Your task to perform on an android device: delete browsing data in the chrome app Image 0: 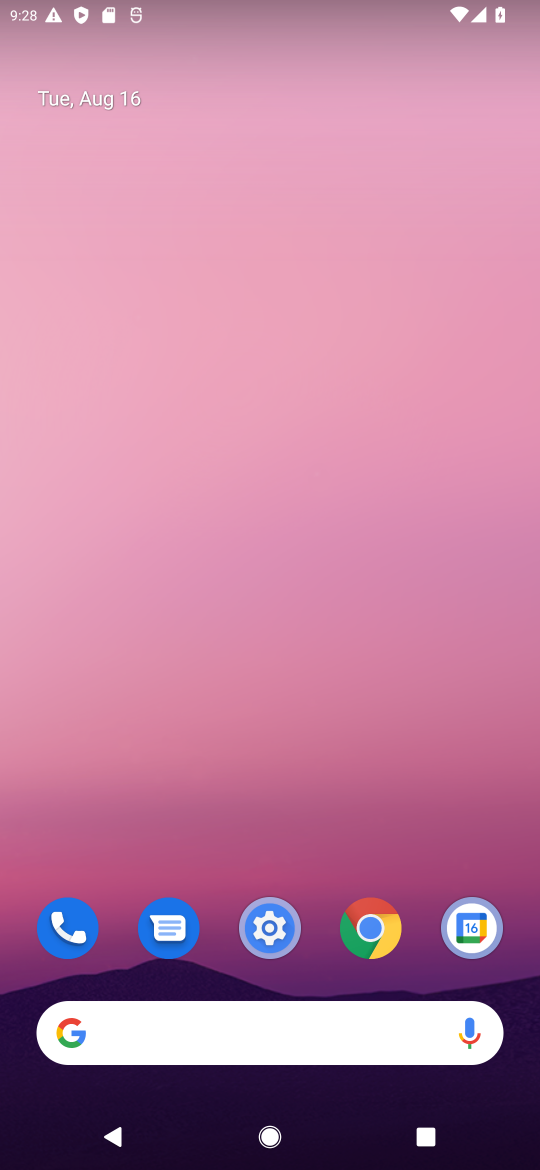
Step 0: press home button
Your task to perform on an android device: delete browsing data in the chrome app Image 1: 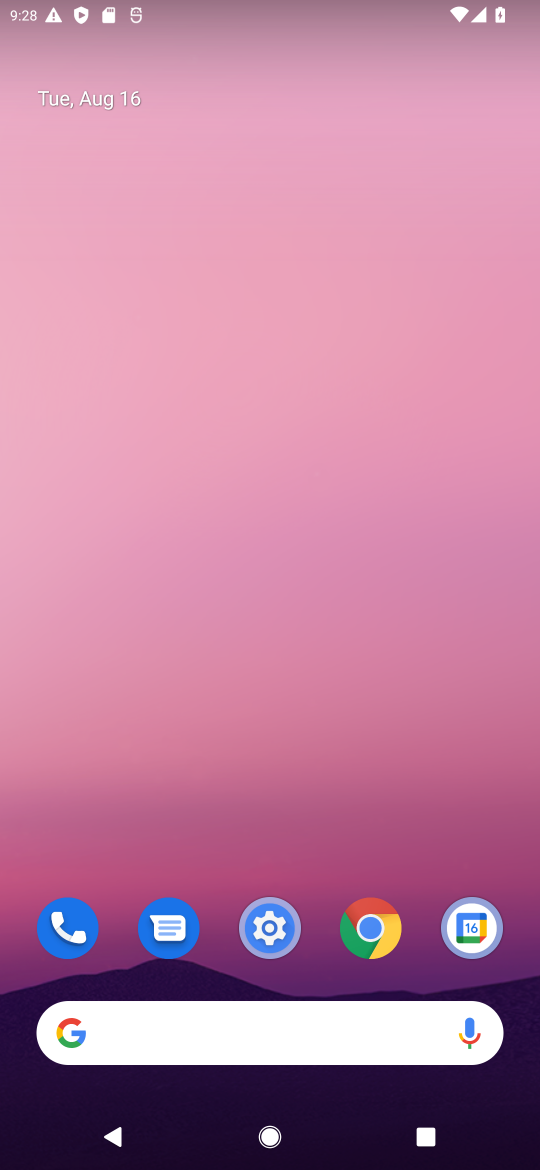
Step 1: click (363, 929)
Your task to perform on an android device: delete browsing data in the chrome app Image 2: 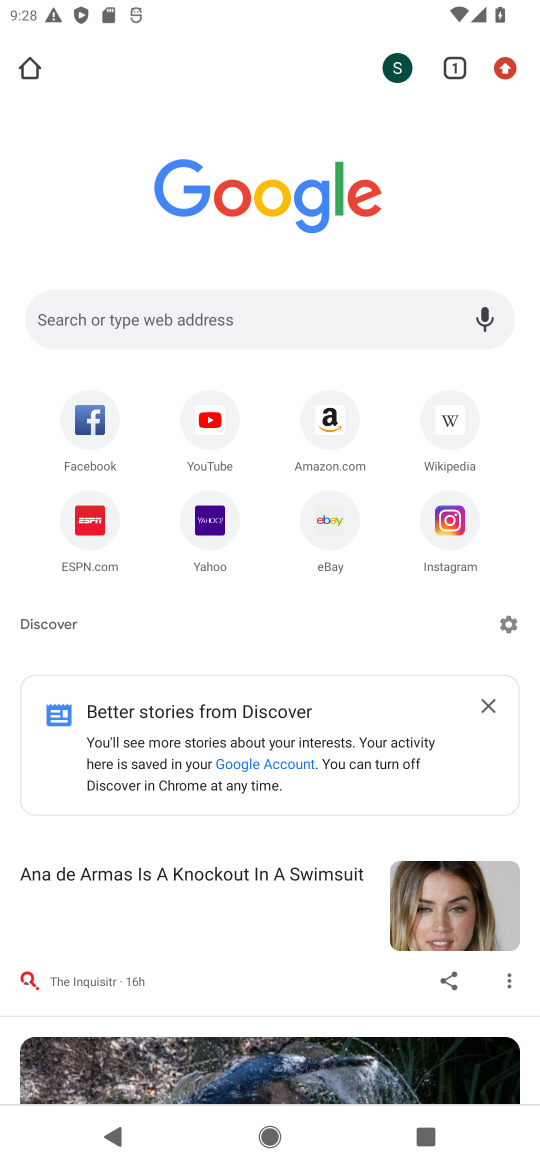
Step 2: click (506, 71)
Your task to perform on an android device: delete browsing data in the chrome app Image 3: 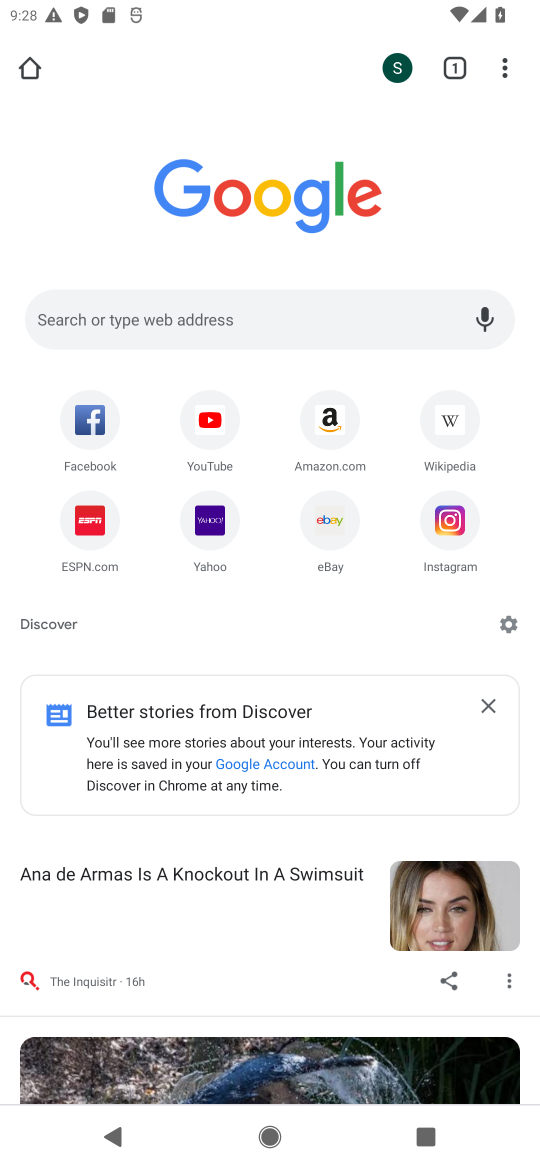
Step 3: drag from (495, 59) to (308, 665)
Your task to perform on an android device: delete browsing data in the chrome app Image 4: 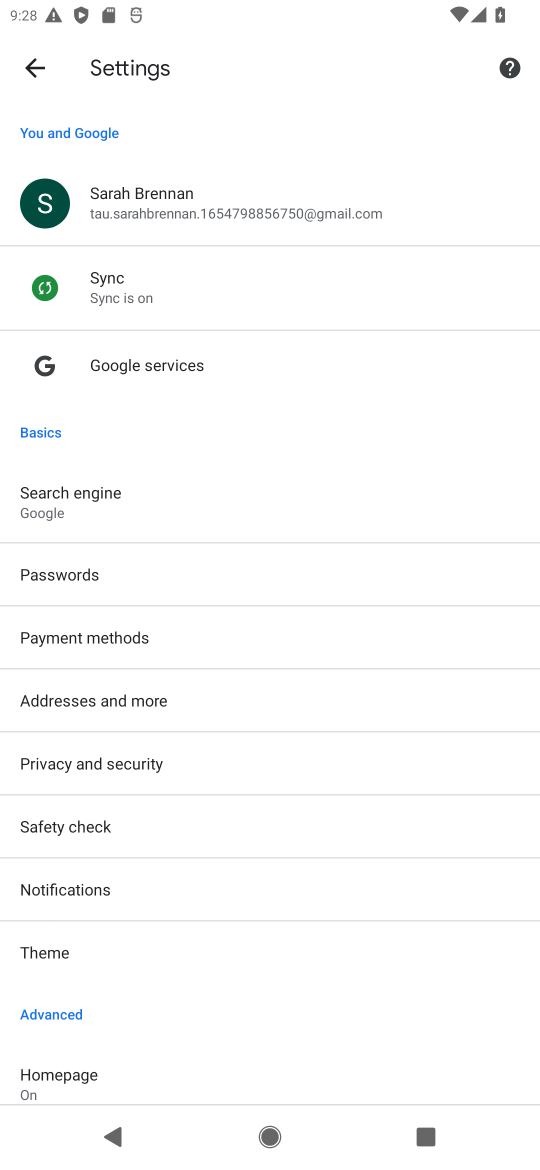
Step 4: drag from (141, 1016) to (152, 694)
Your task to perform on an android device: delete browsing data in the chrome app Image 5: 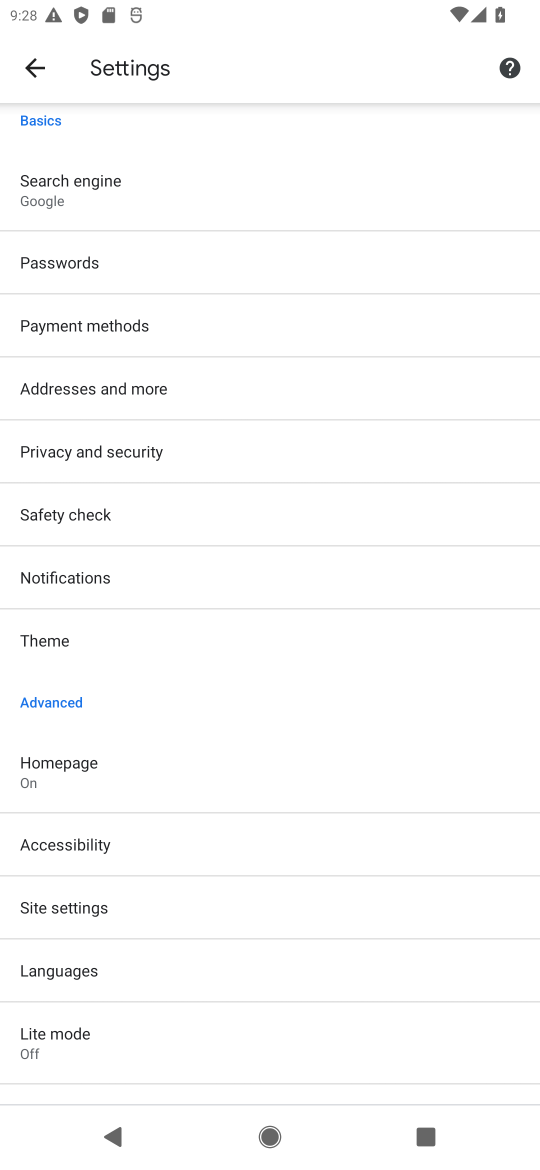
Step 5: click (106, 462)
Your task to perform on an android device: delete browsing data in the chrome app Image 6: 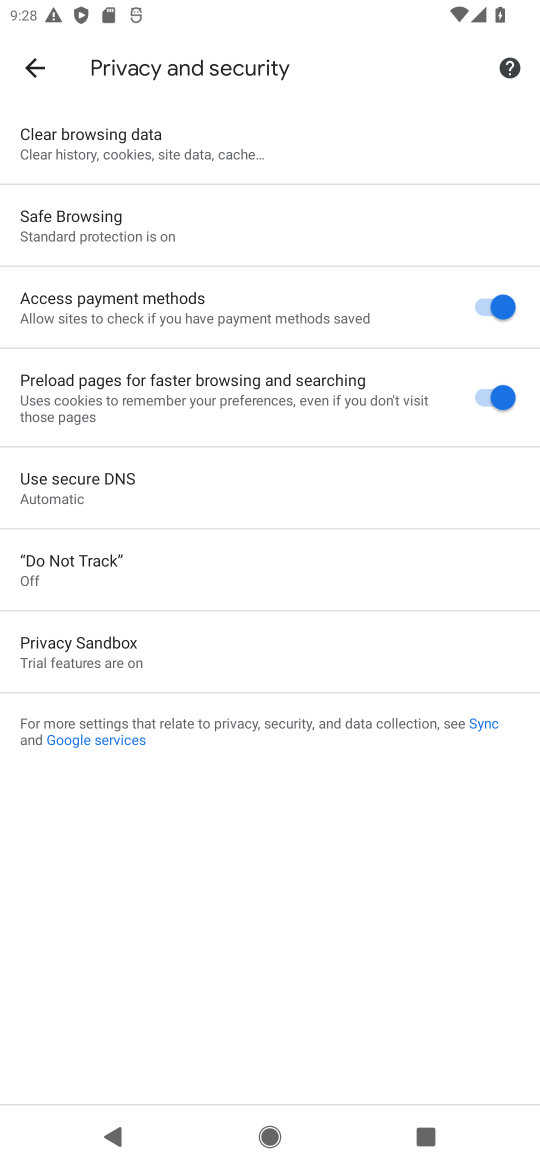
Step 6: click (139, 145)
Your task to perform on an android device: delete browsing data in the chrome app Image 7: 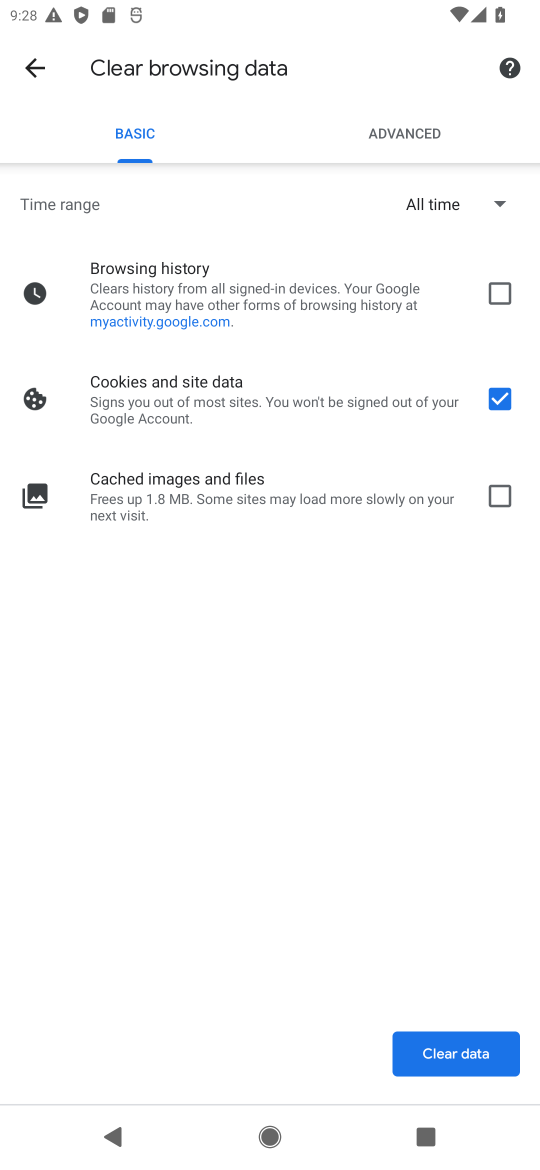
Step 7: click (495, 299)
Your task to perform on an android device: delete browsing data in the chrome app Image 8: 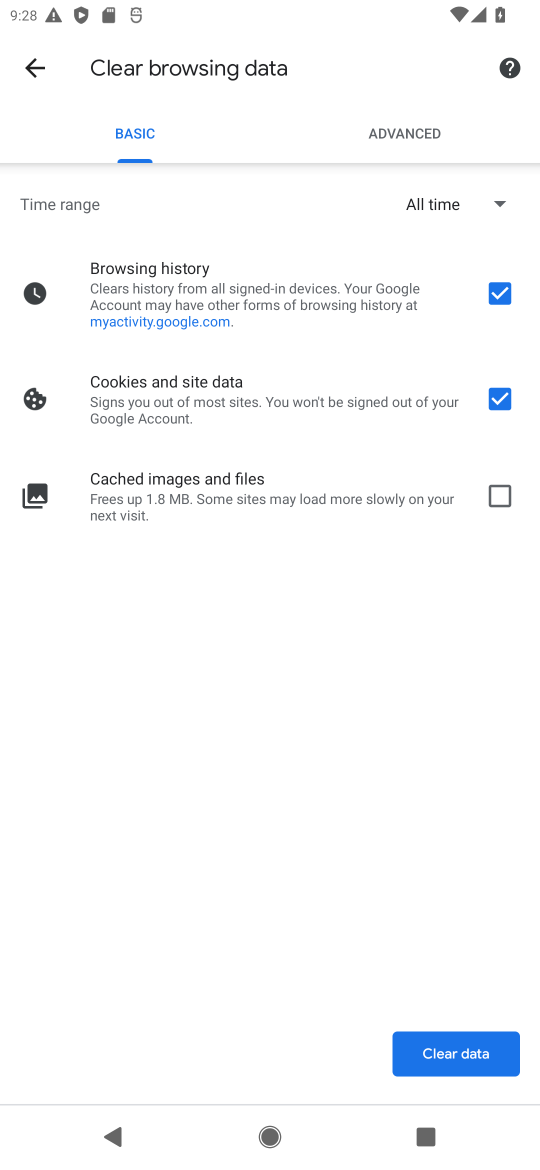
Step 8: click (493, 409)
Your task to perform on an android device: delete browsing data in the chrome app Image 9: 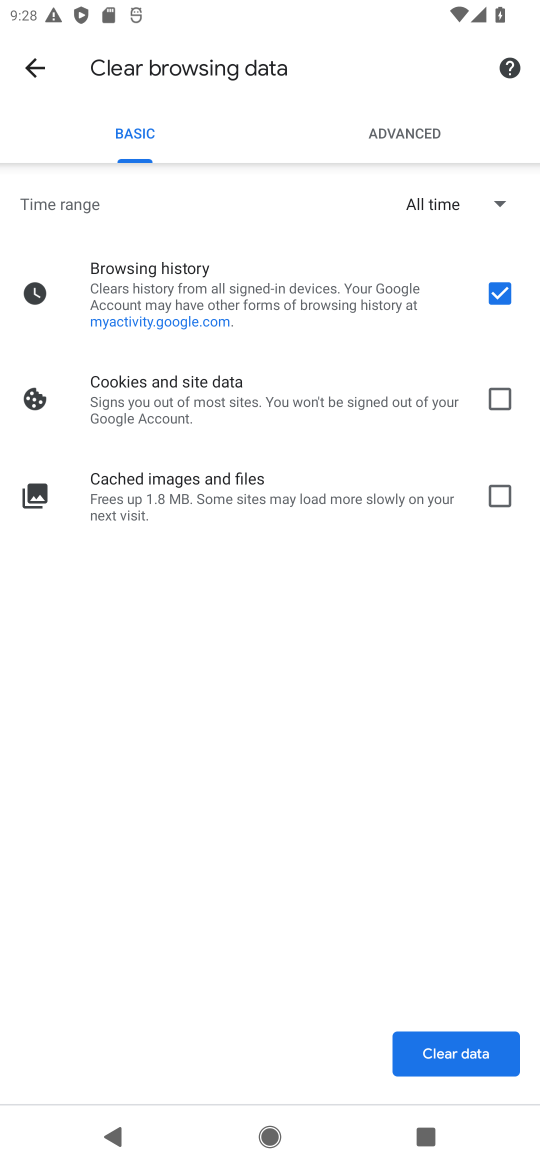
Step 9: click (419, 1058)
Your task to perform on an android device: delete browsing data in the chrome app Image 10: 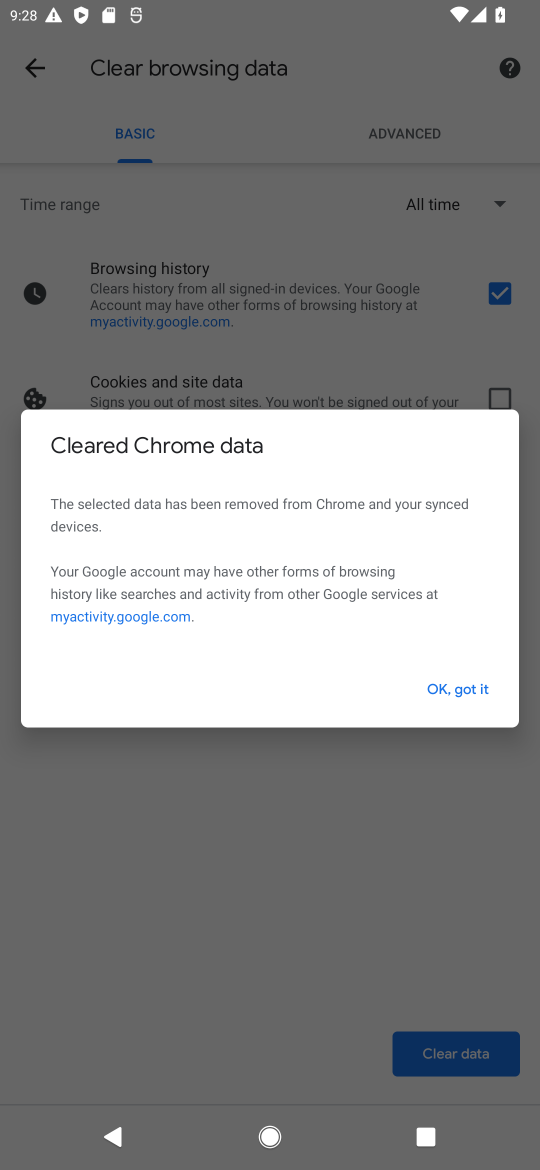
Step 10: click (460, 685)
Your task to perform on an android device: delete browsing data in the chrome app Image 11: 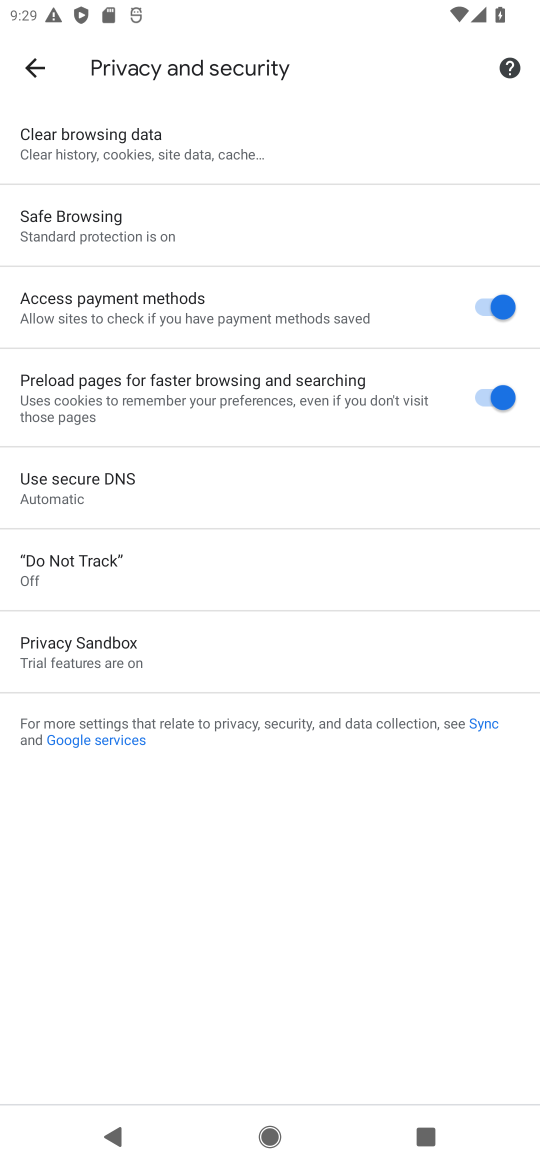
Step 11: task complete